Your task to perform on an android device: toggle data saver in the chrome app Image 0: 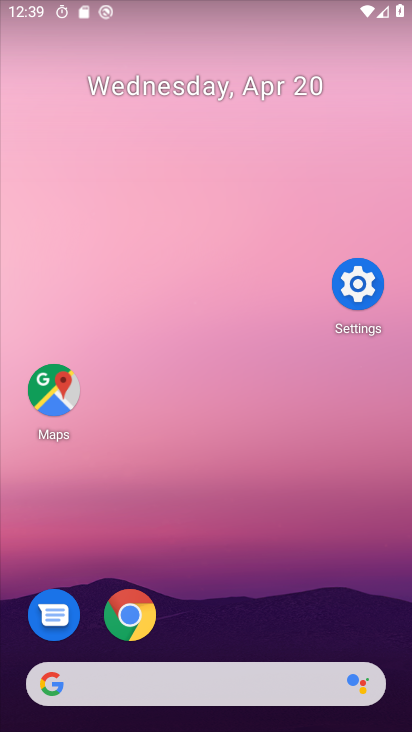
Step 0: drag from (201, 605) to (362, 51)
Your task to perform on an android device: toggle data saver in the chrome app Image 1: 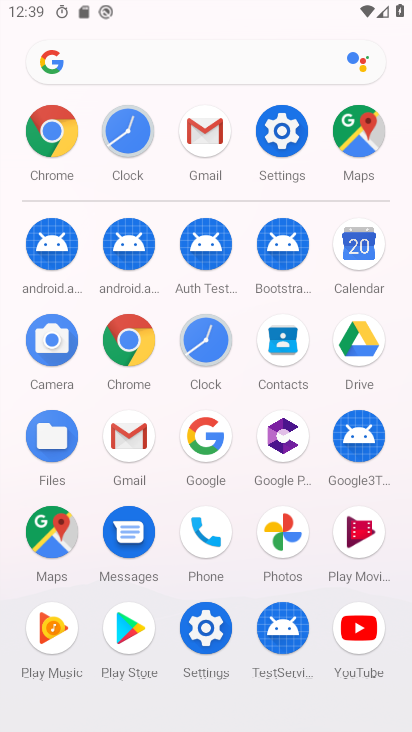
Step 1: click (129, 345)
Your task to perform on an android device: toggle data saver in the chrome app Image 2: 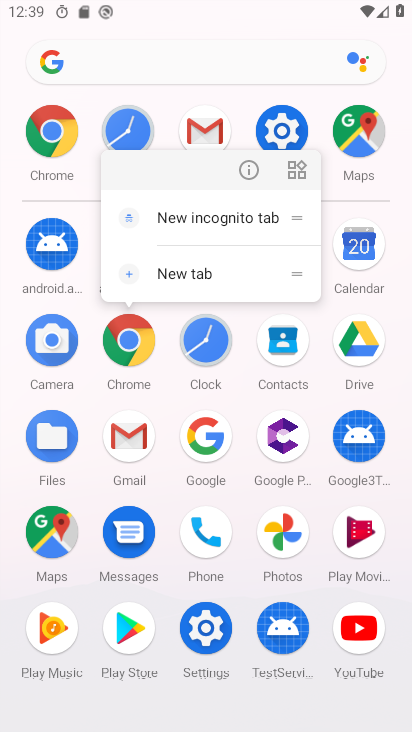
Step 2: click (246, 170)
Your task to perform on an android device: toggle data saver in the chrome app Image 3: 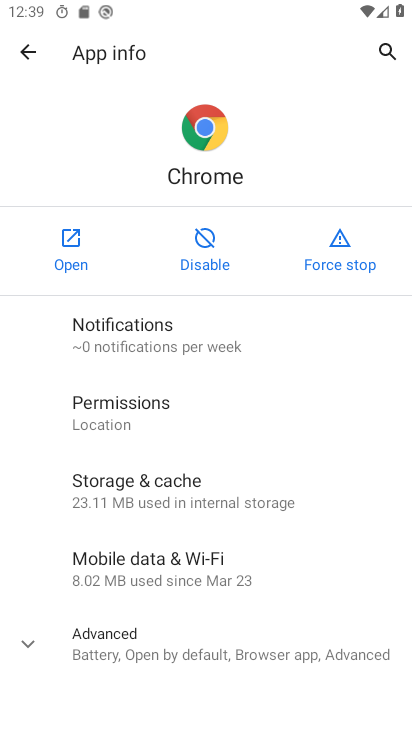
Step 3: click (58, 244)
Your task to perform on an android device: toggle data saver in the chrome app Image 4: 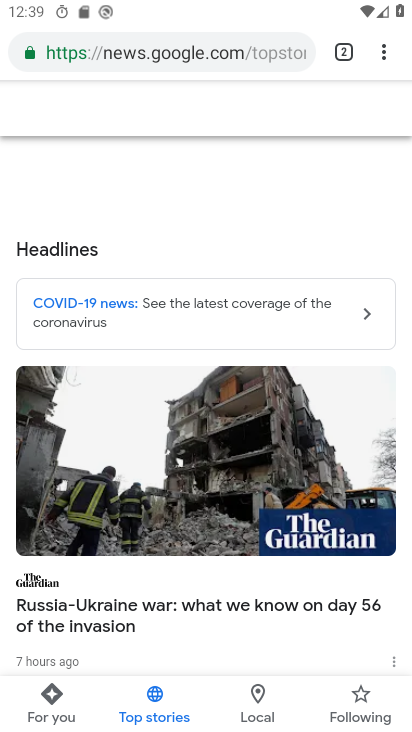
Step 4: drag from (380, 54) to (250, 654)
Your task to perform on an android device: toggle data saver in the chrome app Image 5: 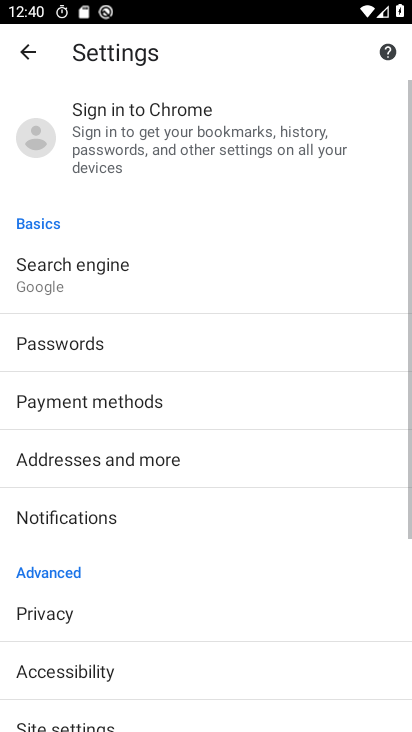
Step 5: drag from (266, 619) to (364, 94)
Your task to perform on an android device: toggle data saver in the chrome app Image 6: 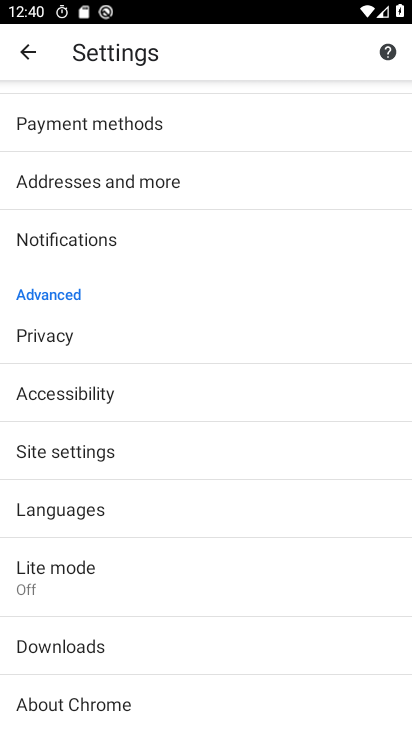
Step 6: click (114, 449)
Your task to perform on an android device: toggle data saver in the chrome app Image 7: 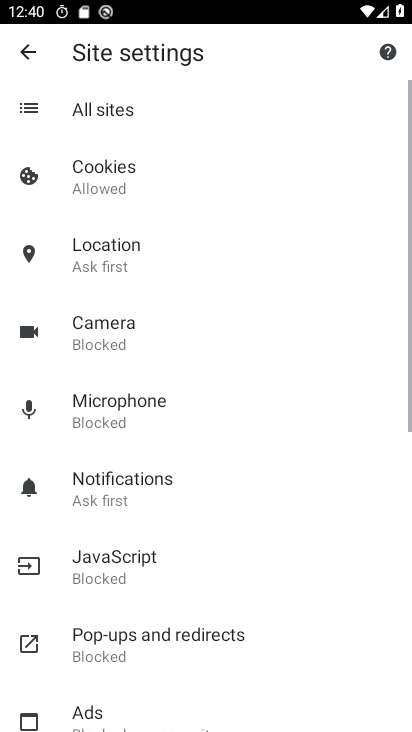
Step 7: drag from (207, 593) to (292, 163)
Your task to perform on an android device: toggle data saver in the chrome app Image 8: 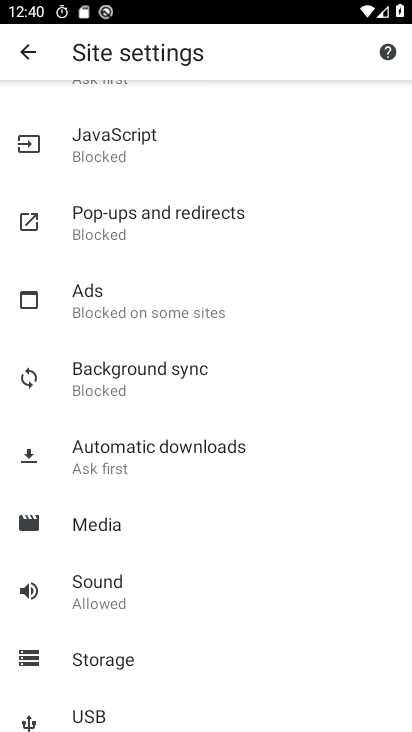
Step 8: click (42, 53)
Your task to perform on an android device: toggle data saver in the chrome app Image 9: 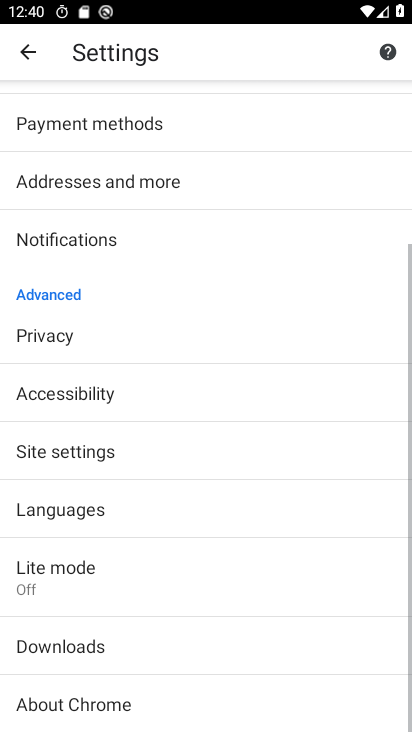
Step 9: click (104, 586)
Your task to perform on an android device: toggle data saver in the chrome app Image 10: 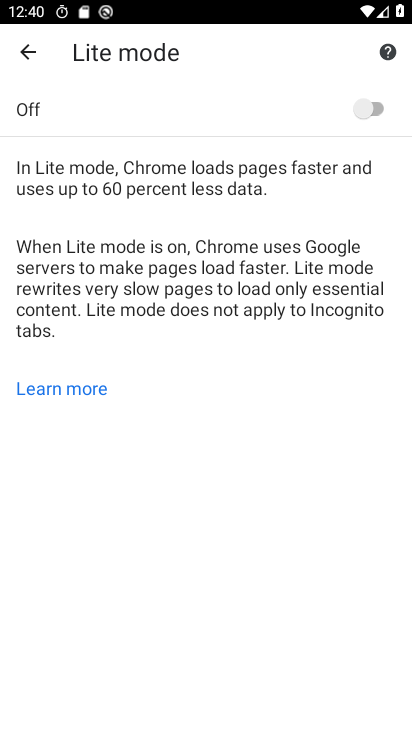
Step 10: click (356, 121)
Your task to perform on an android device: toggle data saver in the chrome app Image 11: 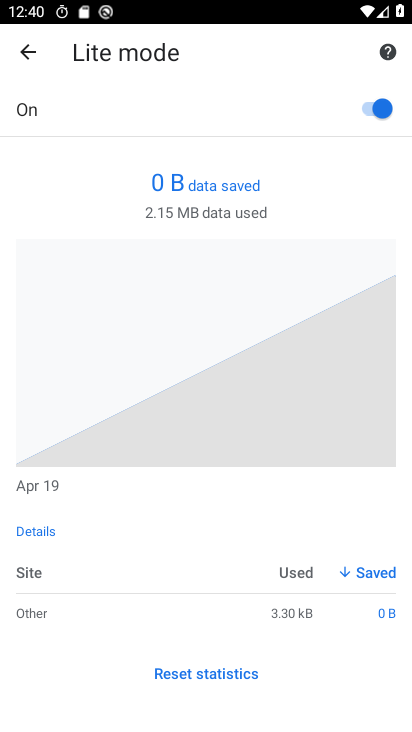
Step 11: task complete